Your task to perform on an android device: Go to Google maps Image 0: 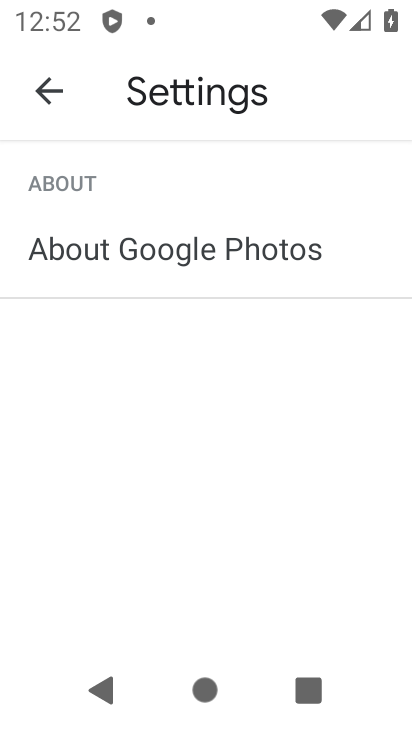
Step 0: press home button
Your task to perform on an android device: Go to Google maps Image 1: 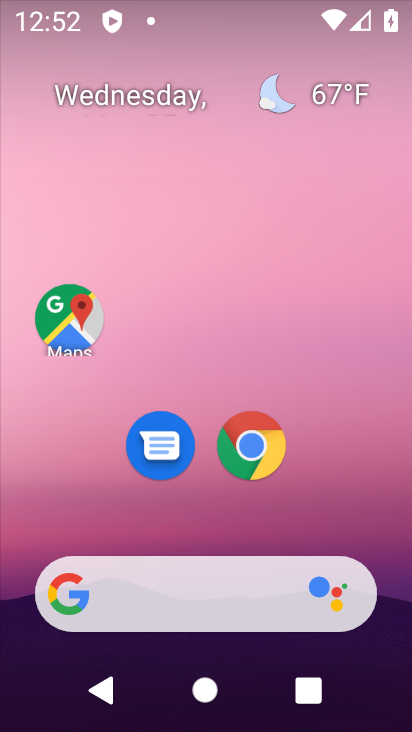
Step 1: click (75, 302)
Your task to perform on an android device: Go to Google maps Image 2: 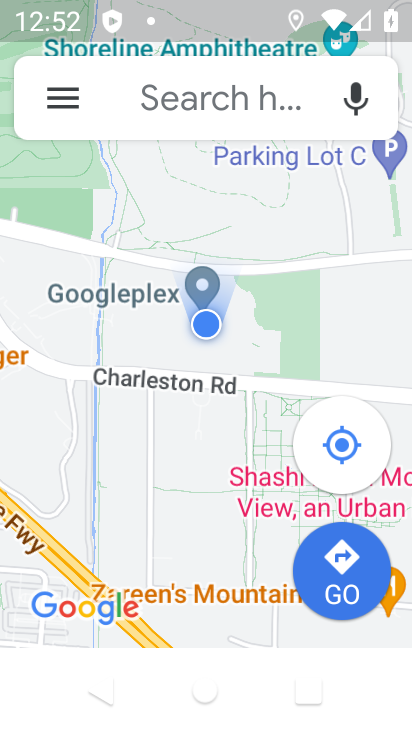
Step 2: task complete